Your task to perform on an android device: delete location history Image 0: 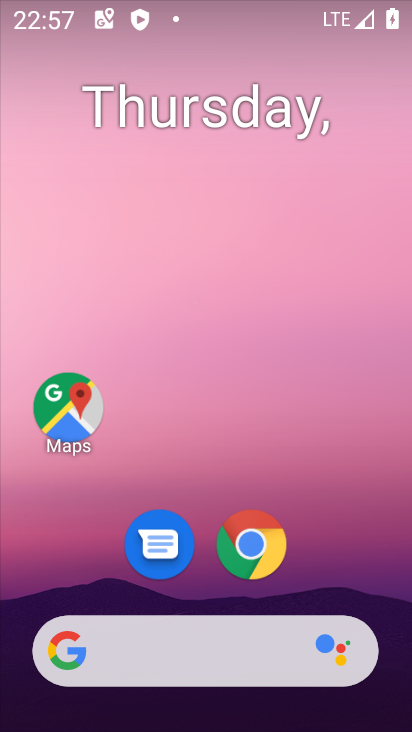
Step 0: drag from (346, 515) to (312, 144)
Your task to perform on an android device: delete location history Image 1: 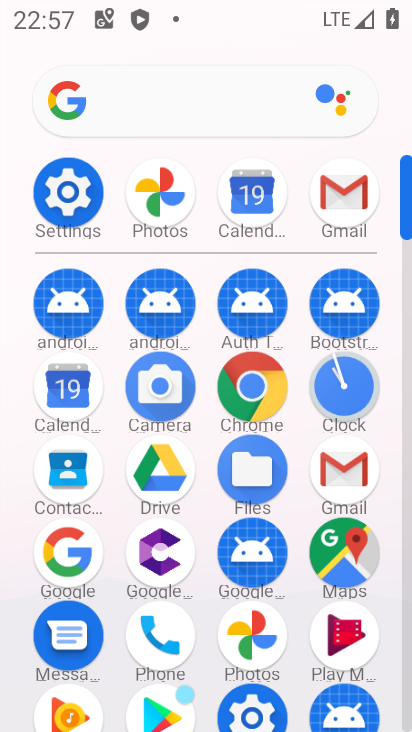
Step 1: click (356, 557)
Your task to perform on an android device: delete location history Image 2: 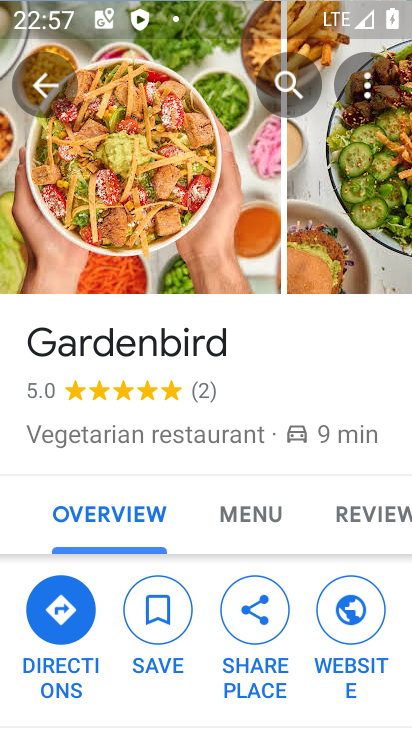
Step 2: click (18, 75)
Your task to perform on an android device: delete location history Image 3: 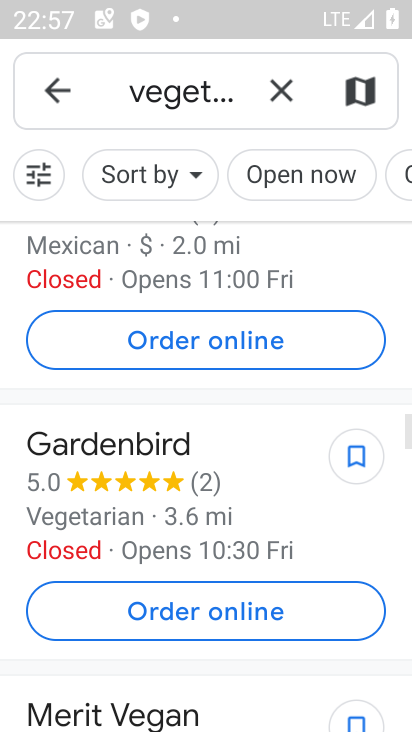
Step 3: click (55, 86)
Your task to perform on an android device: delete location history Image 4: 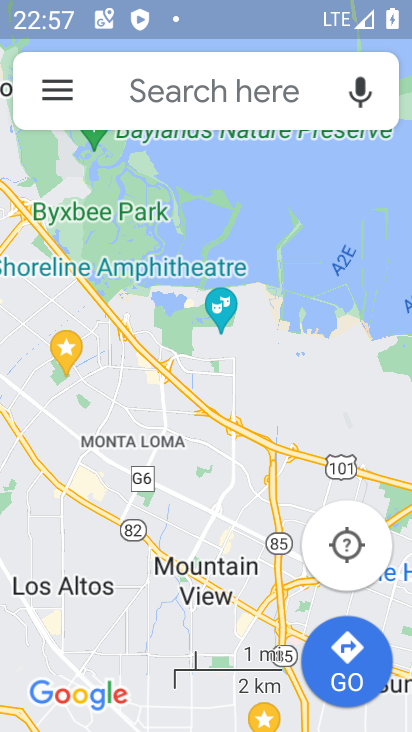
Step 4: click (55, 86)
Your task to perform on an android device: delete location history Image 5: 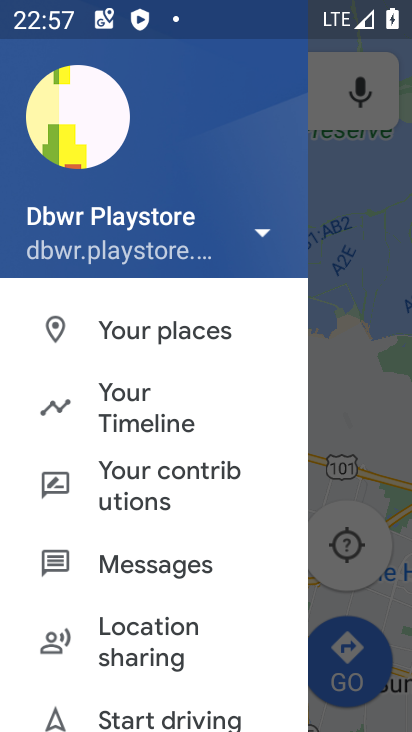
Step 5: drag from (198, 687) to (231, 228)
Your task to perform on an android device: delete location history Image 6: 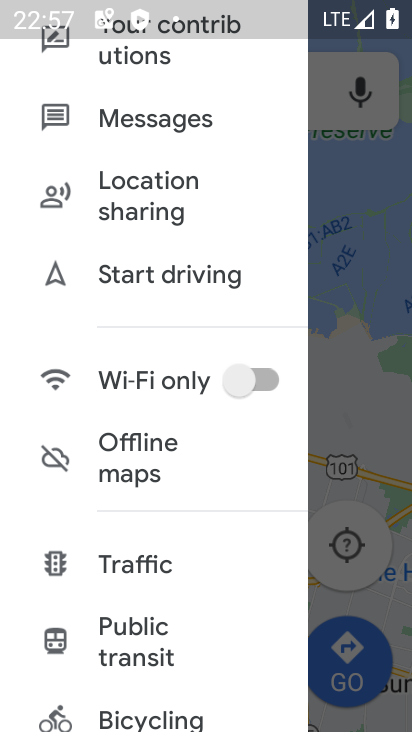
Step 6: drag from (149, 672) to (144, 277)
Your task to perform on an android device: delete location history Image 7: 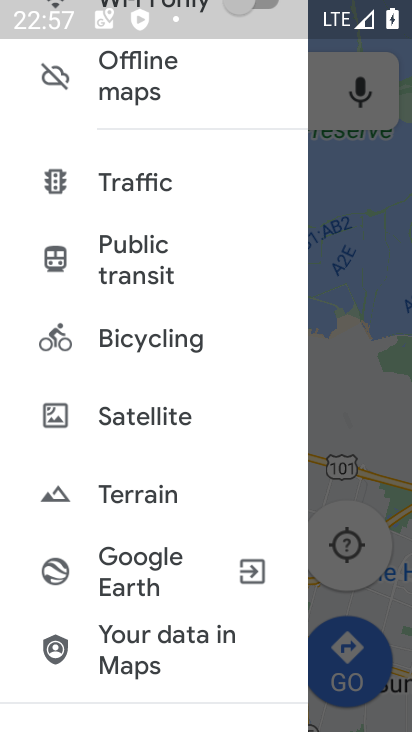
Step 7: drag from (129, 678) to (136, 303)
Your task to perform on an android device: delete location history Image 8: 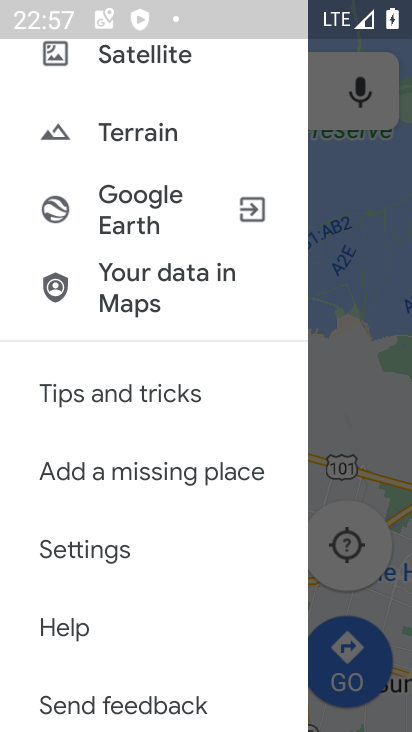
Step 8: click (87, 555)
Your task to perform on an android device: delete location history Image 9: 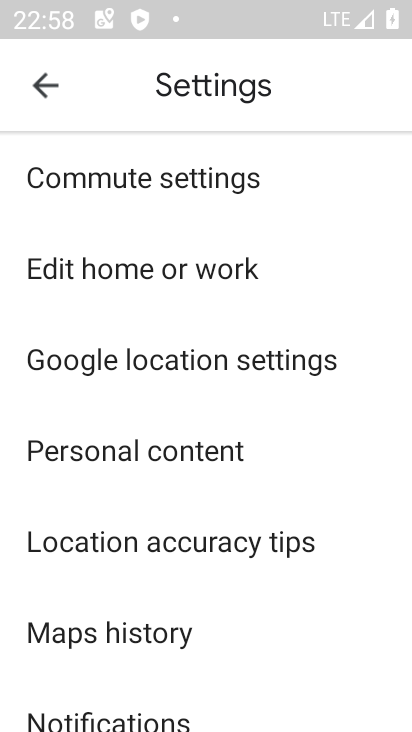
Step 9: click (96, 637)
Your task to perform on an android device: delete location history Image 10: 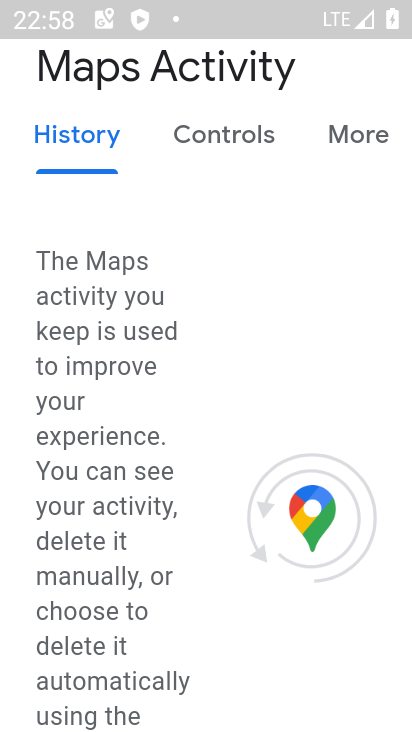
Step 10: drag from (198, 655) to (221, 245)
Your task to perform on an android device: delete location history Image 11: 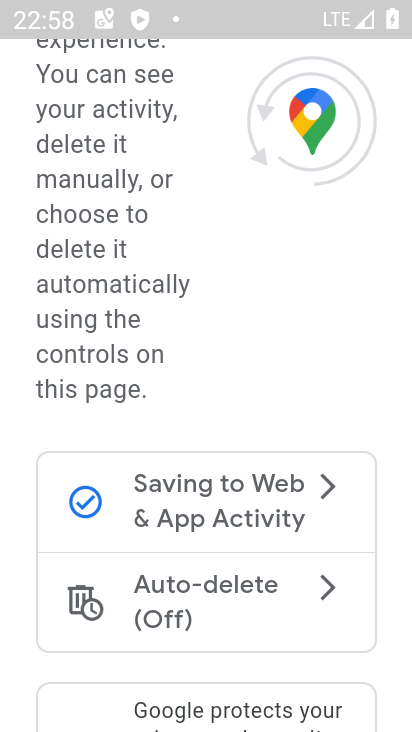
Step 11: drag from (218, 671) to (207, 303)
Your task to perform on an android device: delete location history Image 12: 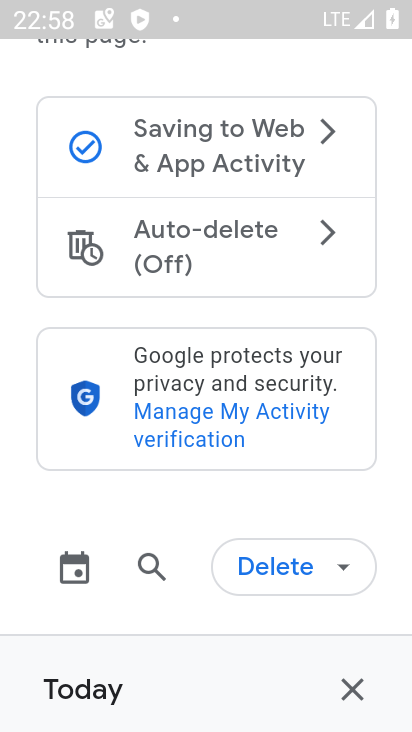
Step 12: click (270, 554)
Your task to perform on an android device: delete location history Image 13: 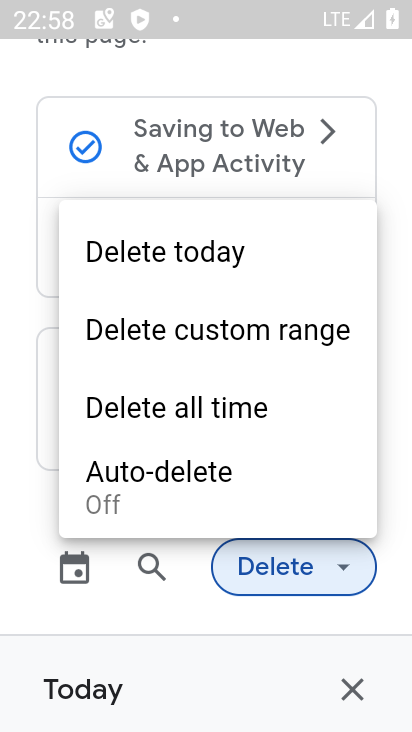
Step 13: click (195, 404)
Your task to perform on an android device: delete location history Image 14: 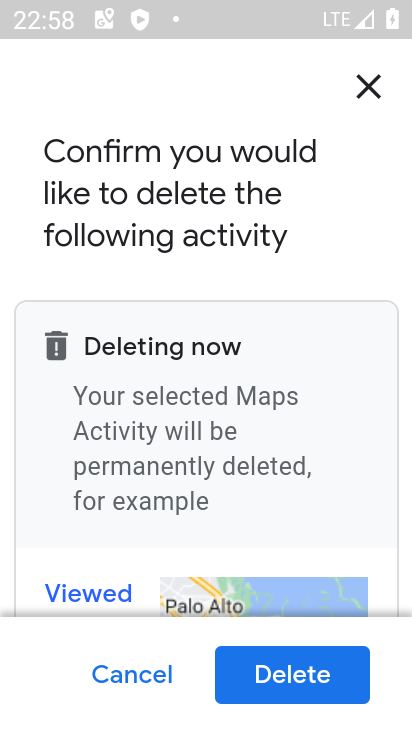
Step 14: click (282, 682)
Your task to perform on an android device: delete location history Image 15: 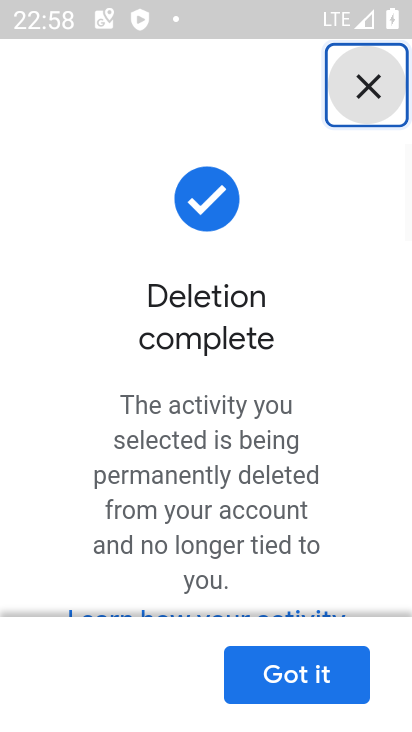
Step 15: click (282, 682)
Your task to perform on an android device: delete location history Image 16: 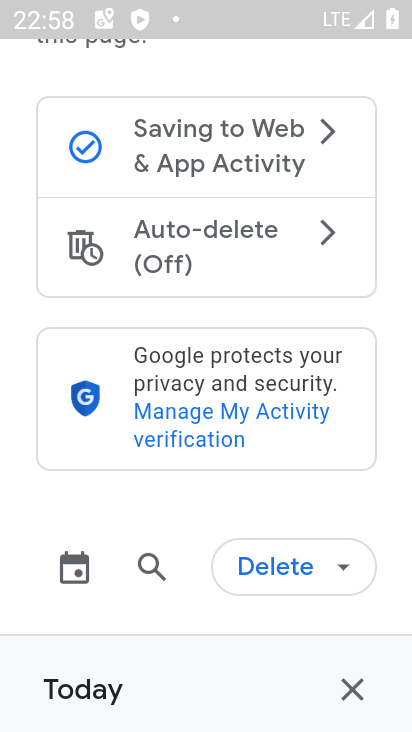
Step 16: task complete